Your task to perform on an android device: Go to battery settings Image 0: 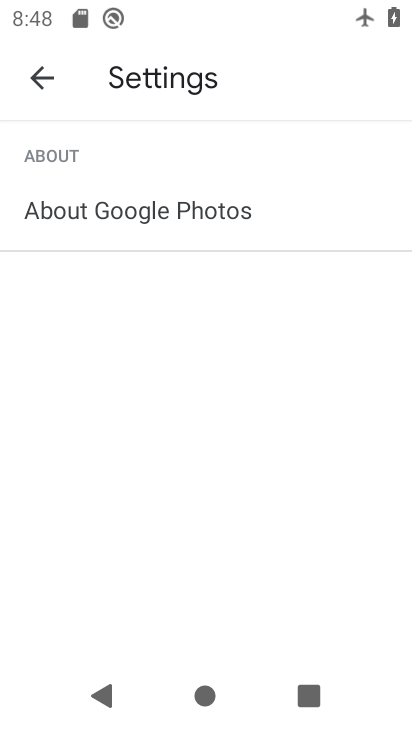
Step 0: press home button
Your task to perform on an android device: Go to battery settings Image 1: 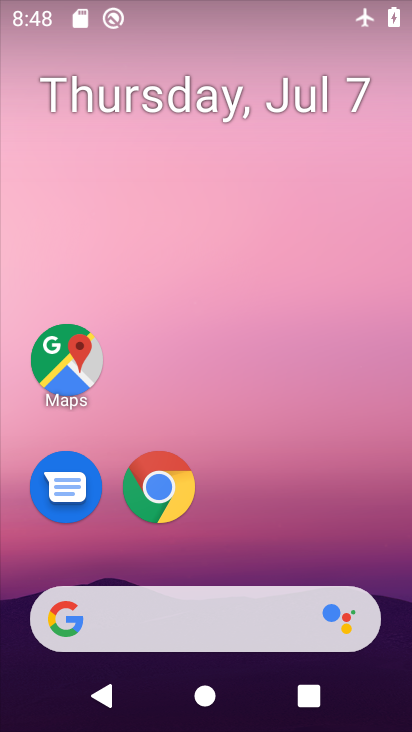
Step 1: drag from (370, 529) to (351, 215)
Your task to perform on an android device: Go to battery settings Image 2: 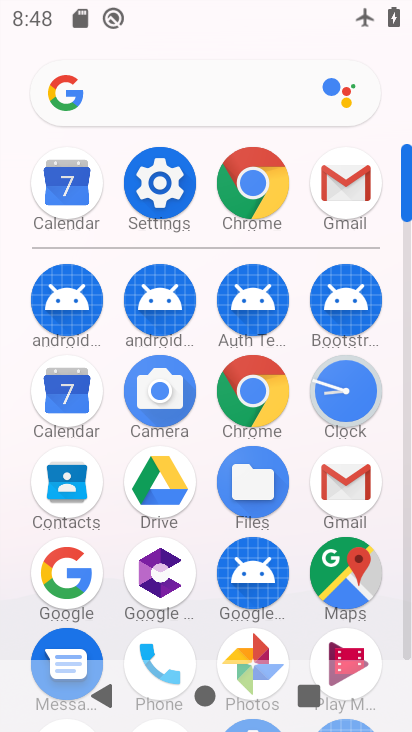
Step 2: click (167, 202)
Your task to perform on an android device: Go to battery settings Image 3: 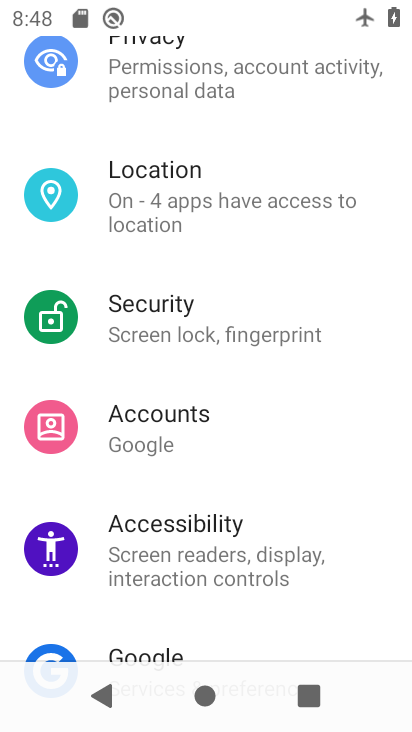
Step 3: drag from (345, 266) to (341, 323)
Your task to perform on an android device: Go to battery settings Image 4: 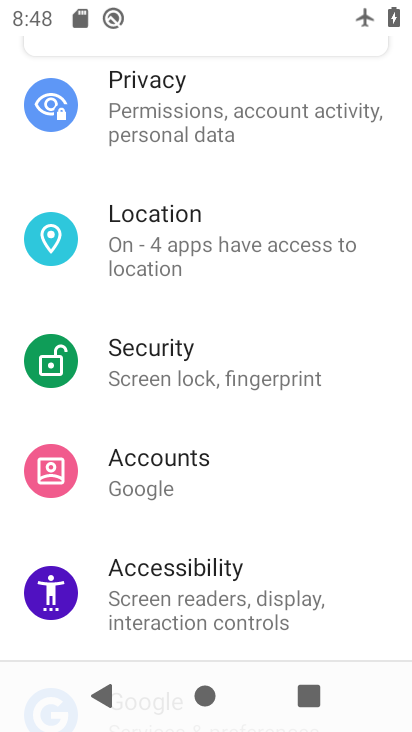
Step 4: drag from (372, 230) to (374, 306)
Your task to perform on an android device: Go to battery settings Image 5: 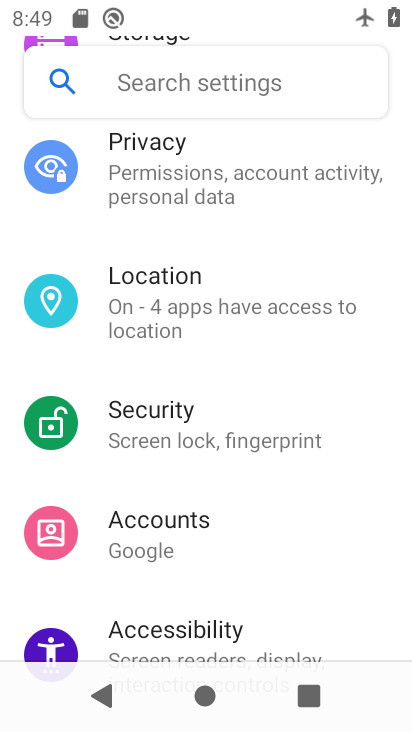
Step 5: drag from (376, 232) to (378, 313)
Your task to perform on an android device: Go to battery settings Image 6: 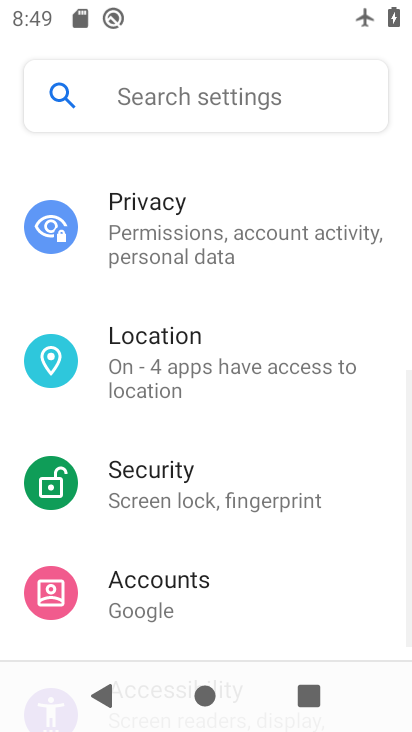
Step 6: drag from (386, 208) to (385, 304)
Your task to perform on an android device: Go to battery settings Image 7: 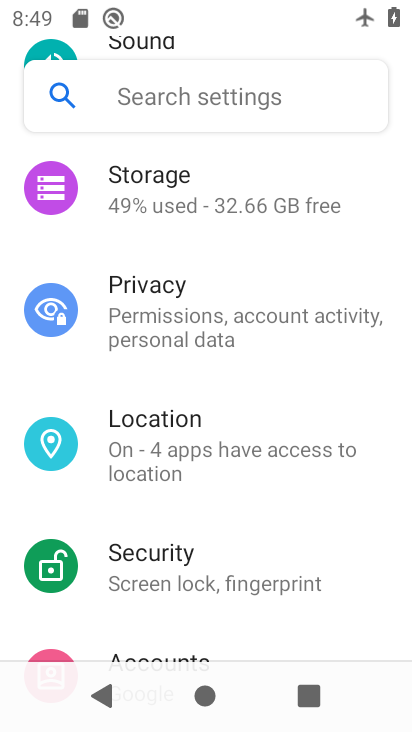
Step 7: drag from (384, 221) to (384, 311)
Your task to perform on an android device: Go to battery settings Image 8: 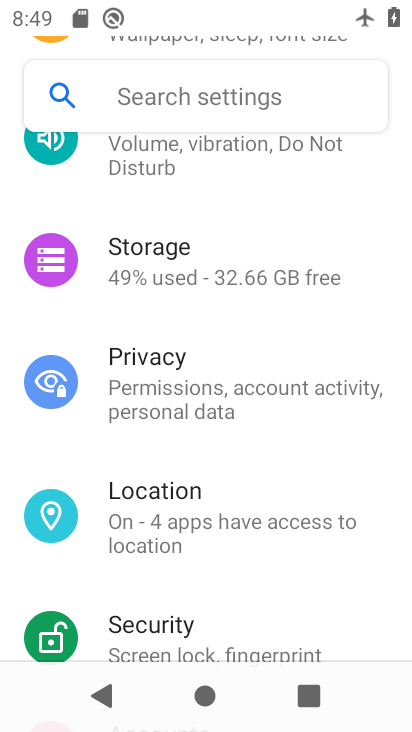
Step 8: drag from (369, 208) to (371, 306)
Your task to perform on an android device: Go to battery settings Image 9: 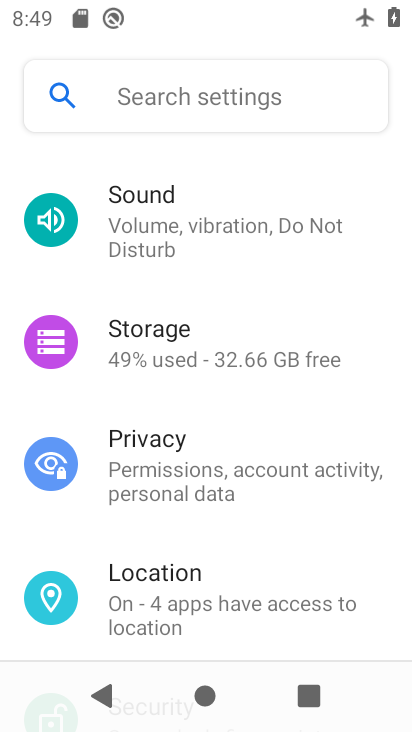
Step 9: drag from (365, 206) to (358, 311)
Your task to perform on an android device: Go to battery settings Image 10: 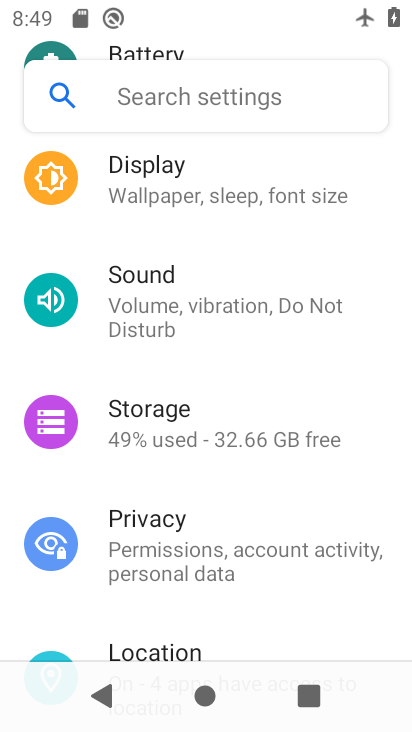
Step 10: drag from (369, 216) to (365, 319)
Your task to perform on an android device: Go to battery settings Image 11: 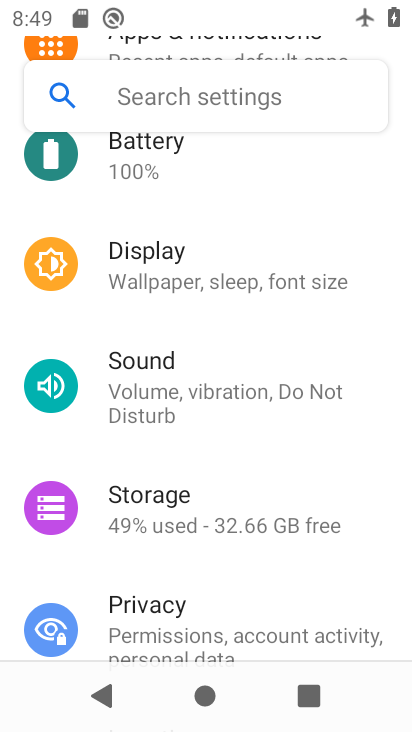
Step 11: drag from (365, 214) to (365, 314)
Your task to perform on an android device: Go to battery settings Image 12: 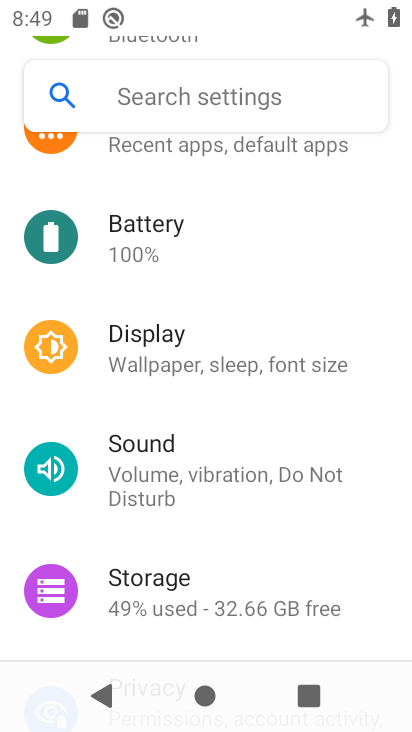
Step 12: drag from (362, 223) to (357, 339)
Your task to perform on an android device: Go to battery settings Image 13: 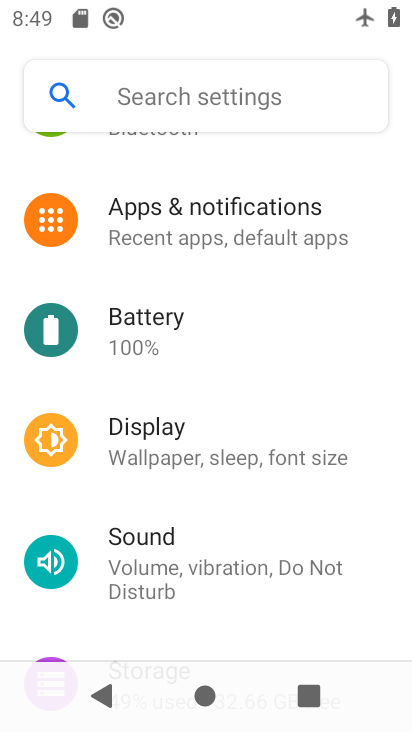
Step 13: click (238, 335)
Your task to perform on an android device: Go to battery settings Image 14: 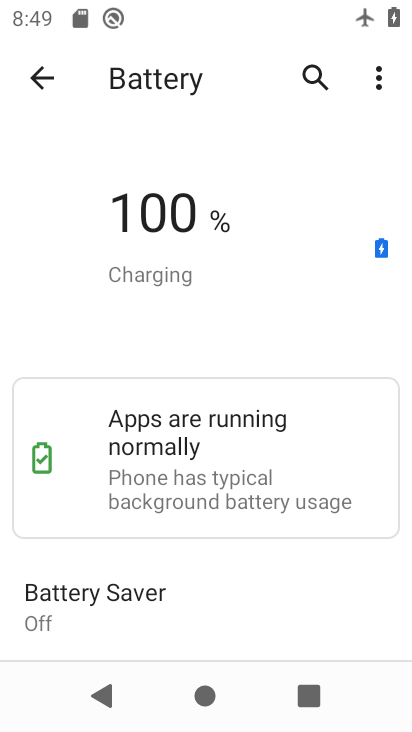
Step 14: task complete